Your task to perform on an android device: empty trash in the gmail app Image 0: 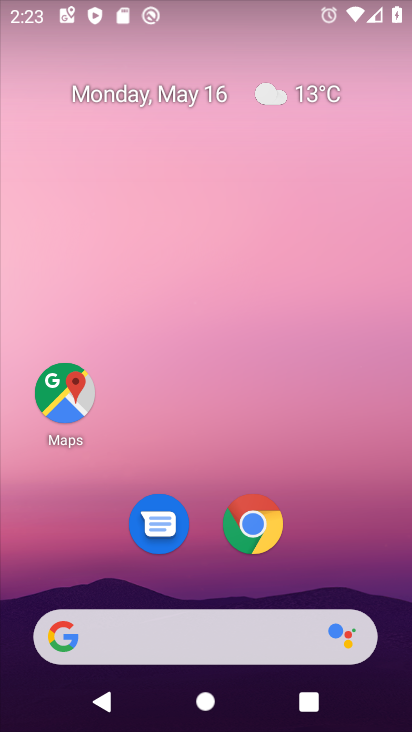
Step 0: drag from (245, 439) to (239, 53)
Your task to perform on an android device: empty trash in the gmail app Image 1: 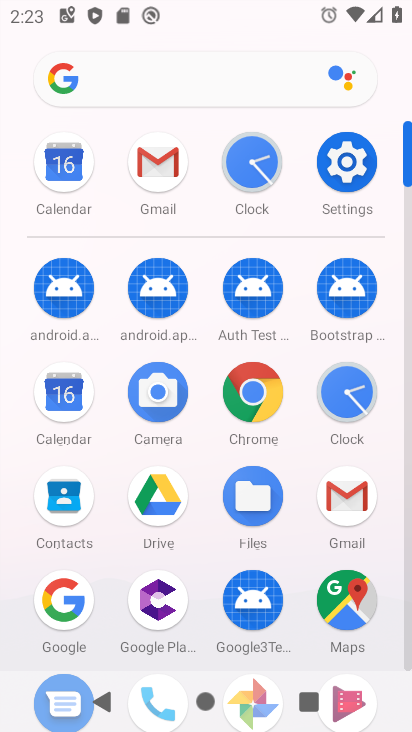
Step 1: click (145, 164)
Your task to perform on an android device: empty trash in the gmail app Image 2: 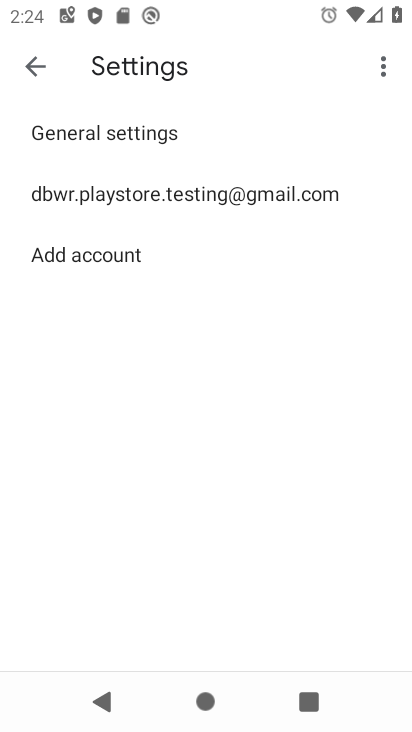
Step 2: click (41, 58)
Your task to perform on an android device: empty trash in the gmail app Image 3: 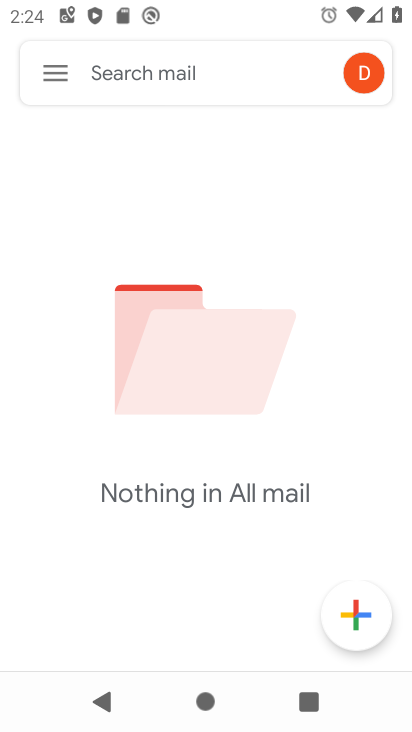
Step 3: click (57, 72)
Your task to perform on an android device: empty trash in the gmail app Image 4: 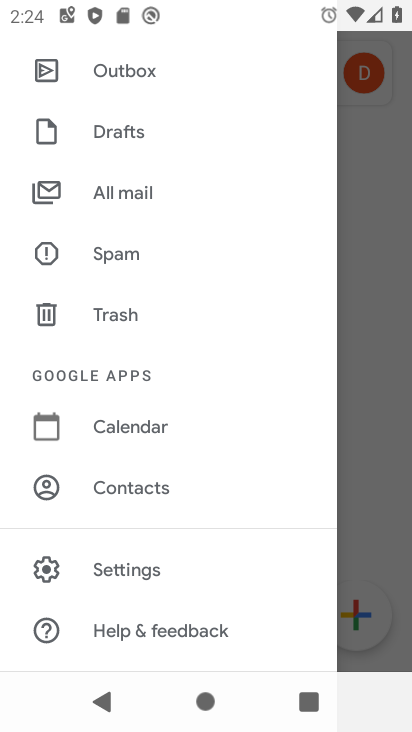
Step 4: click (116, 303)
Your task to perform on an android device: empty trash in the gmail app Image 5: 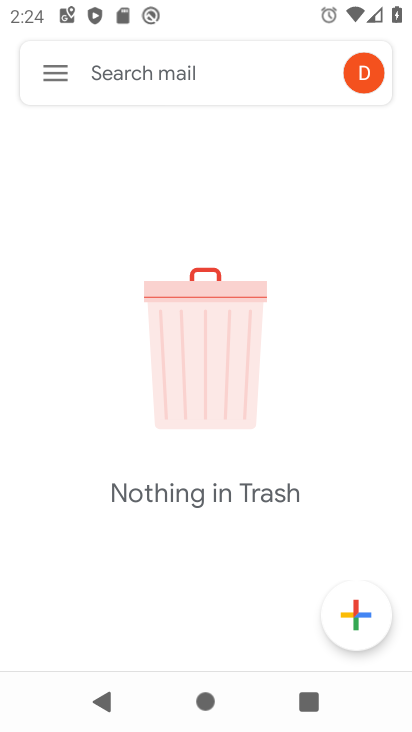
Step 5: task complete